Your task to perform on an android device: choose inbox layout in the gmail app Image 0: 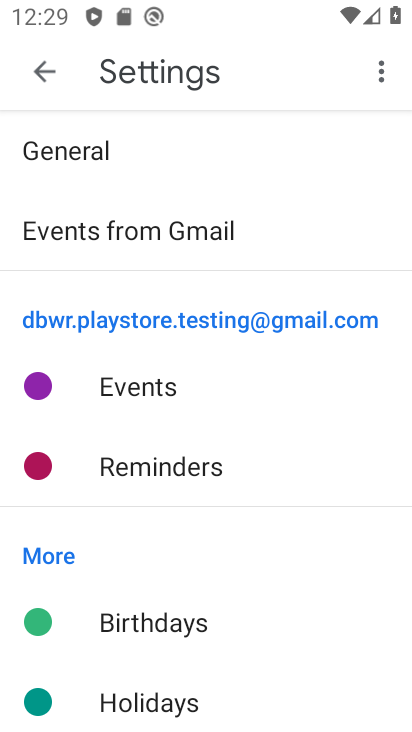
Step 0: press home button
Your task to perform on an android device: choose inbox layout in the gmail app Image 1: 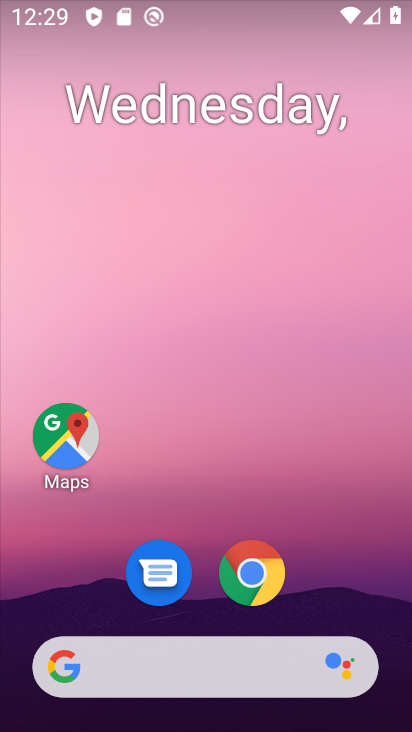
Step 1: drag from (324, 538) to (306, 97)
Your task to perform on an android device: choose inbox layout in the gmail app Image 2: 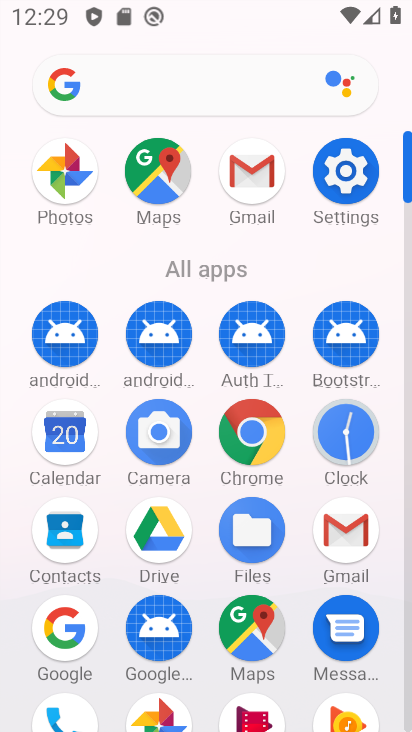
Step 2: click (237, 174)
Your task to perform on an android device: choose inbox layout in the gmail app Image 3: 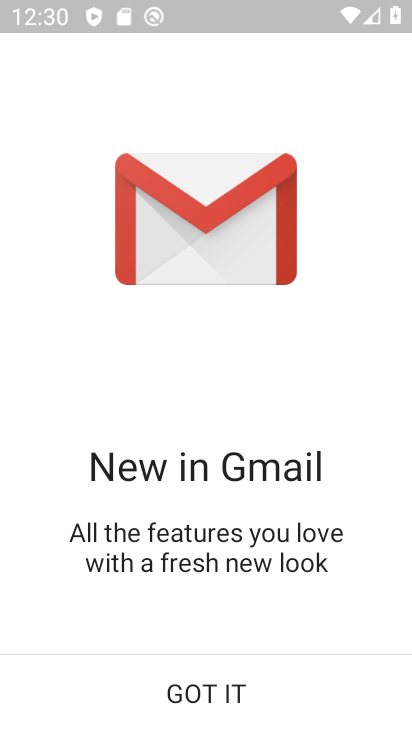
Step 3: click (155, 677)
Your task to perform on an android device: choose inbox layout in the gmail app Image 4: 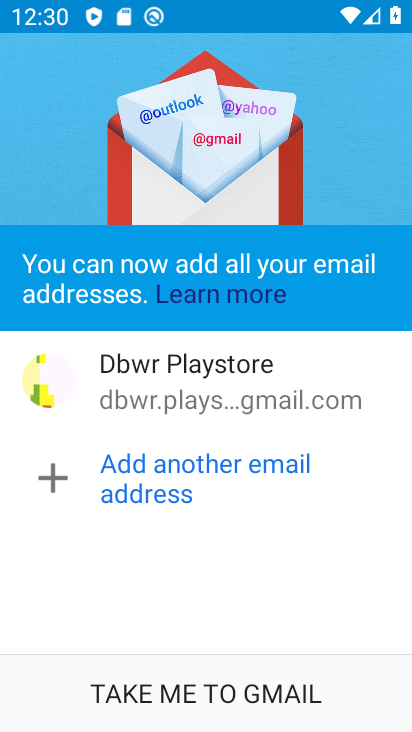
Step 4: click (297, 697)
Your task to perform on an android device: choose inbox layout in the gmail app Image 5: 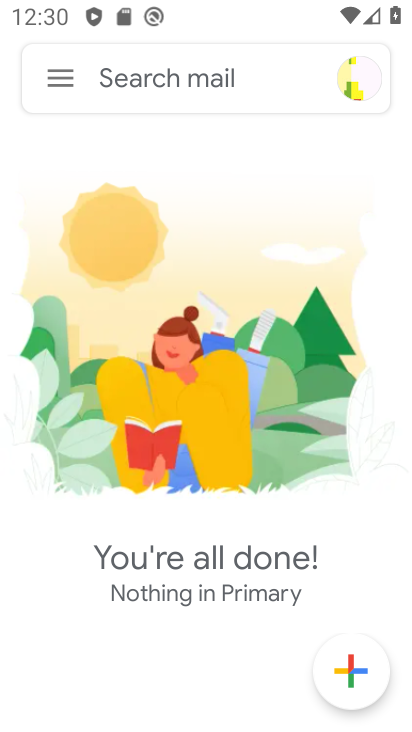
Step 5: click (50, 71)
Your task to perform on an android device: choose inbox layout in the gmail app Image 6: 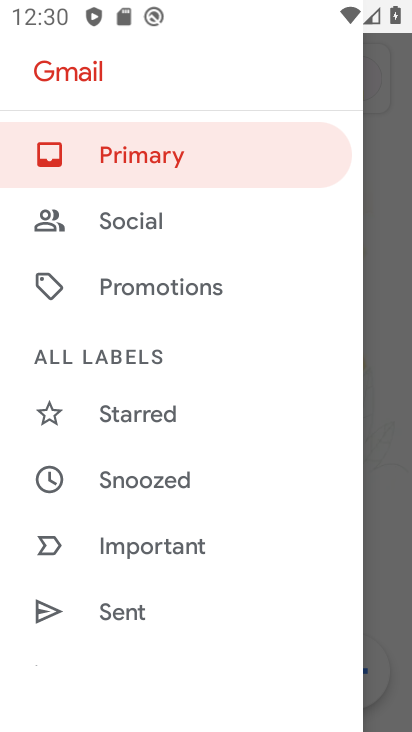
Step 6: drag from (167, 485) to (275, 64)
Your task to perform on an android device: choose inbox layout in the gmail app Image 7: 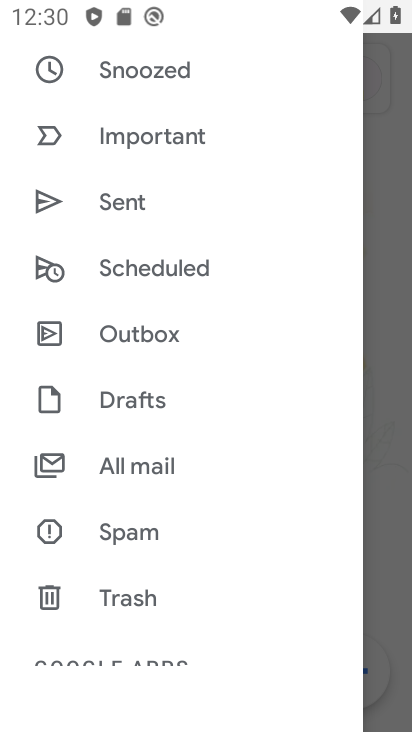
Step 7: drag from (162, 571) to (300, 152)
Your task to perform on an android device: choose inbox layout in the gmail app Image 8: 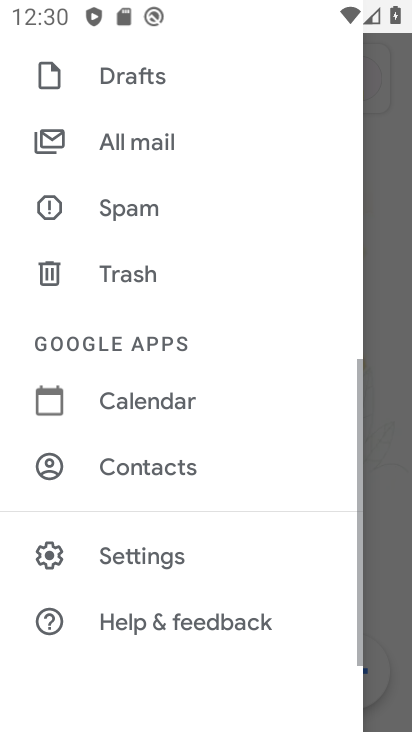
Step 8: click (149, 569)
Your task to perform on an android device: choose inbox layout in the gmail app Image 9: 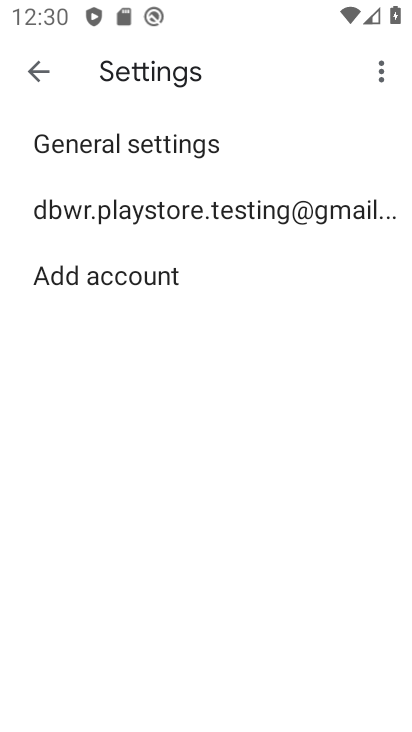
Step 9: click (189, 218)
Your task to perform on an android device: choose inbox layout in the gmail app Image 10: 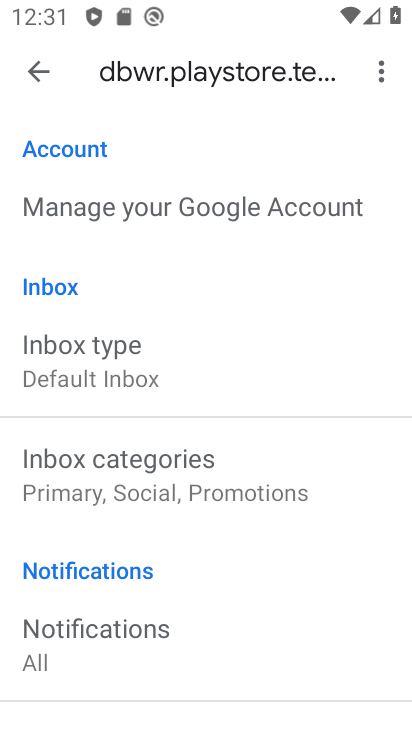
Step 10: click (104, 349)
Your task to perform on an android device: choose inbox layout in the gmail app Image 11: 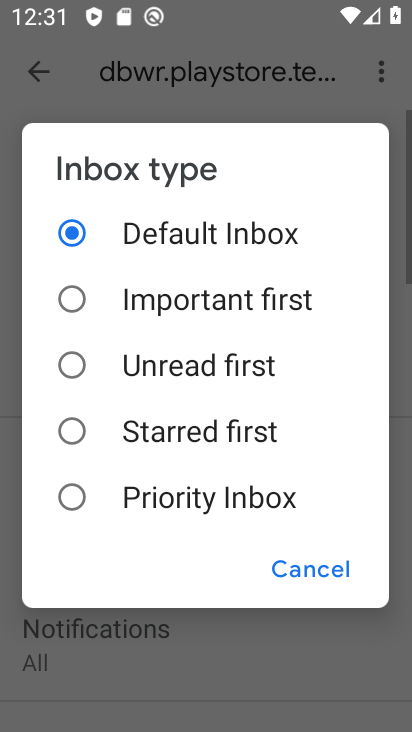
Step 11: task complete